Your task to perform on an android device: Open notification settings Image 0: 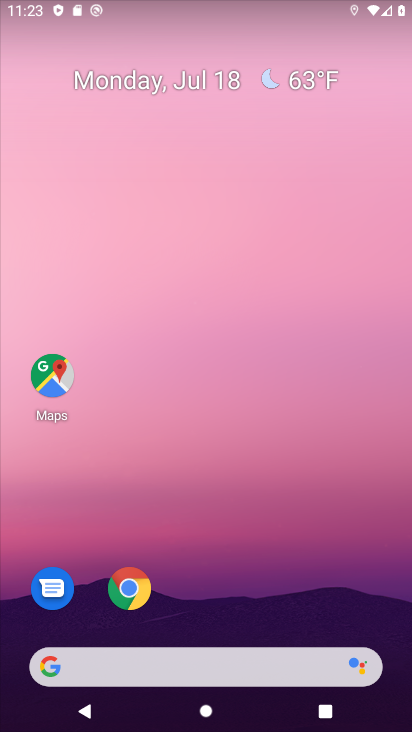
Step 0: drag from (399, 552) to (409, 288)
Your task to perform on an android device: Open notification settings Image 1: 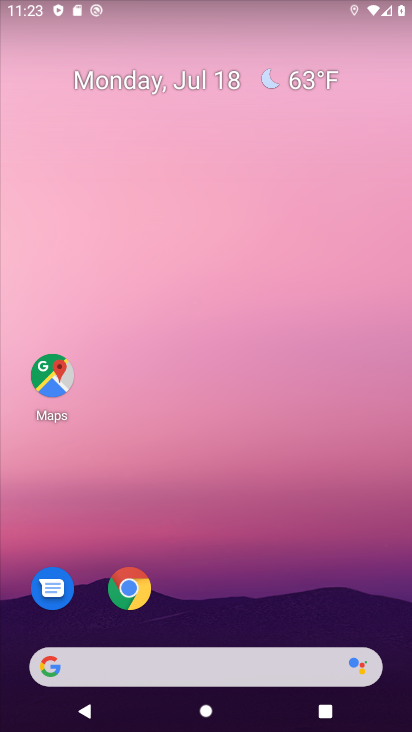
Step 1: drag from (293, 554) to (331, 0)
Your task to perform on an android device: Open notification settings Image 2: 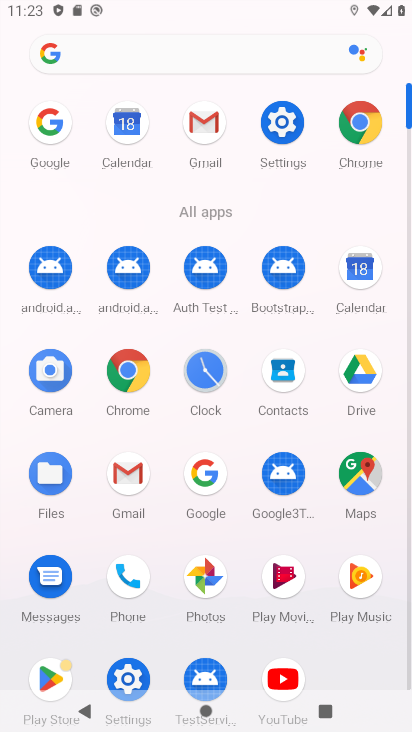
Step 2: click (294, 200)
Your task to perform on an android device: Open notification settings Image 3: 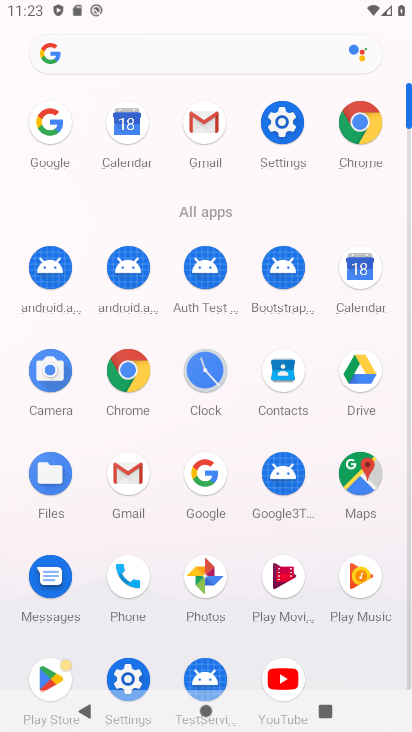
Step 3: click (286, 108)
Your task to perform on an android device: Open notification settings Image 4: 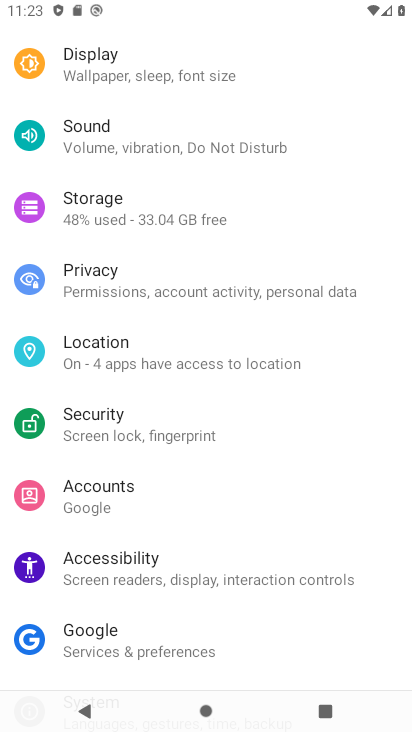
Step 4: drag from (266, 90) to (178, 548)
Your task to perform on an android device: Open notification settings Image 5: 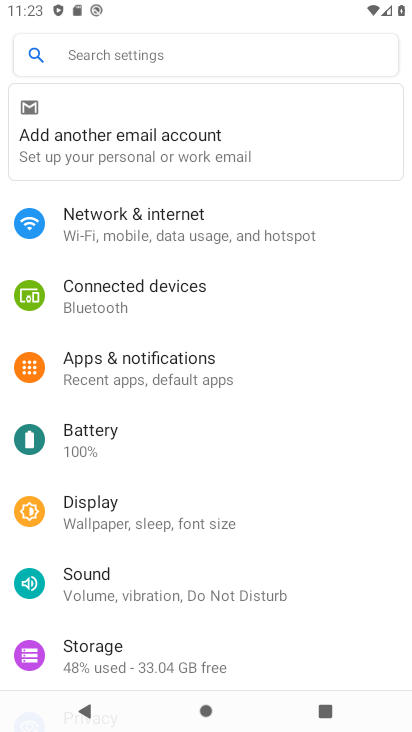
Step 5: click (190, 352)
Your task to perform on an android device: Open notification settings Image 6: 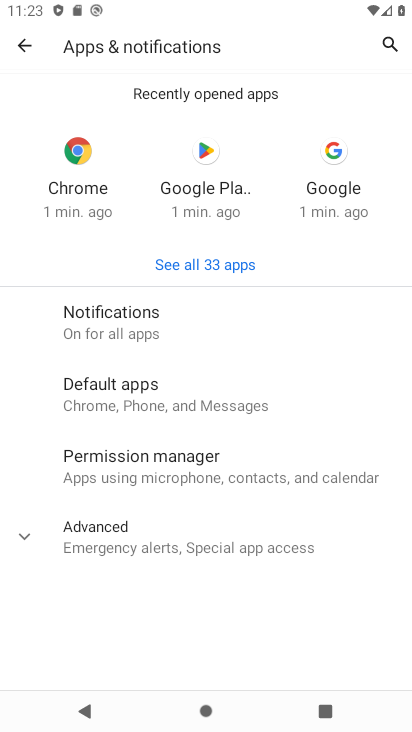
Step 6: click (104, 319)
Your task to perform on an android device: Open notification settings Image 7: 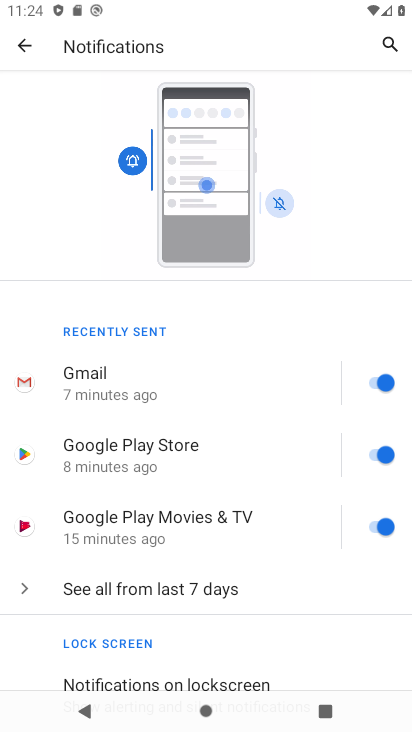
Step 7: task complete